Your task to perform on an android device: Show the shopping cart on ebay. Add macbook pro 15 inch to the cart on ebay Image 0: 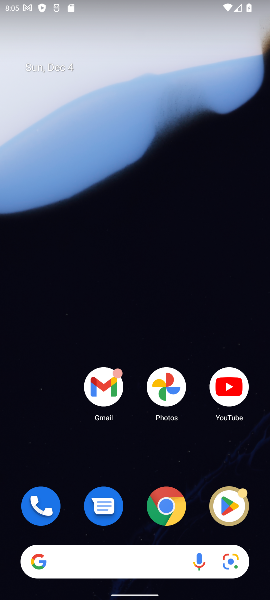
Step 0: click (172, 515)
Your task to perform on an android device: Show the shopping cart on ebay. Add macbook pro 15 inch to the cart on ebay Image 1: 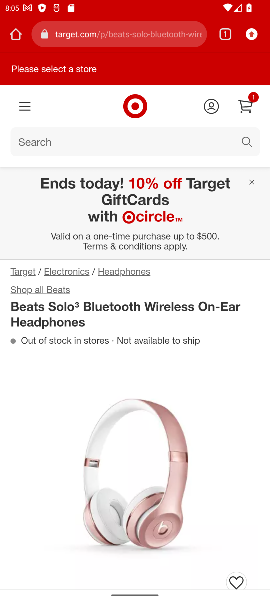
Step 1: click (107, 35)
Your task to perform on an android device: Show the shopping cart on ebay. Add macbook pro 15 inch to the cart on ebay Image 2: 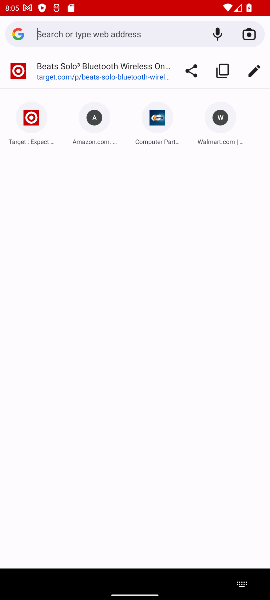
Step 2: type "ebay"
Your task to perform on an android device: Show the shopping cart on ebay. Add macbook pro 15 inch to the cart on ebay Image 3: 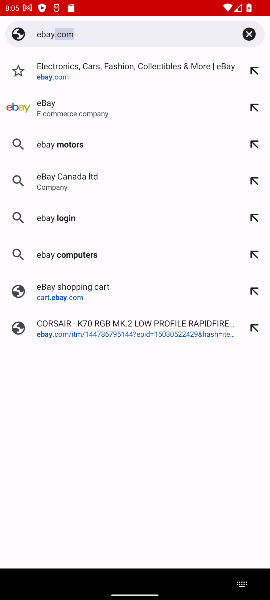
Step 3: click (55, 100)
Your task to perform on an android device: Show the shopping cart on ebay. Add macbook pro 15 inch to the cart on ebay Image 4: 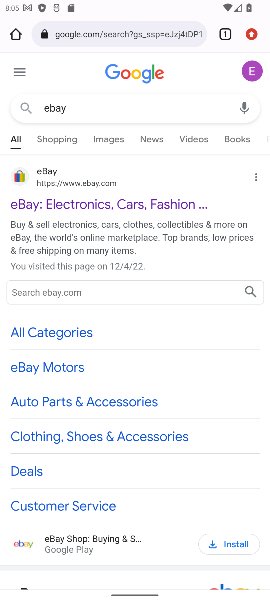
Step 4: click (103, 209)
Your task to perform on an android device: Show the shopping cart on ebay. Add macbook pro 15 inch to the cart on ebay Image 5: 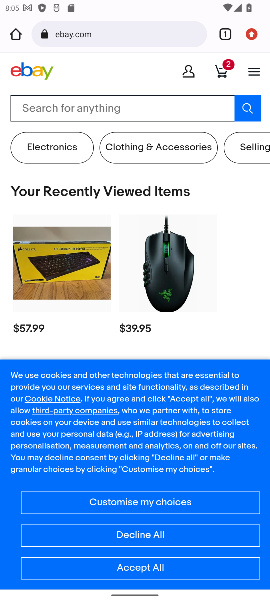
Step 5: click (219, 72)
Your task to perform on an android device: Show the shopping cart on ebay. Add macbook pro 15 inch to the cart on ebay Image 6: 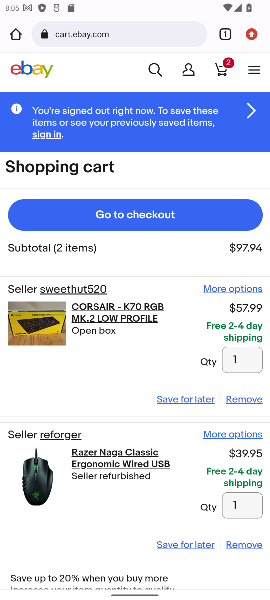
Step 6: click (153, 71)
Your task to perform on an android device: Show the shopping cart on ebay. Add macbook pro 15 inch to the cart on ebay Image 7: 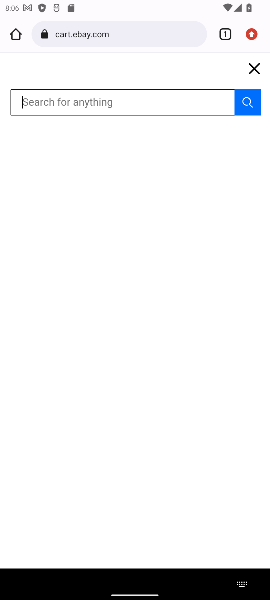
Step 7: type "macbook pro 15"
Your task to perform on an android device: Show the shopping cart on ebay. Add macbook pro 15 inch to the cart on ebay Image 8: 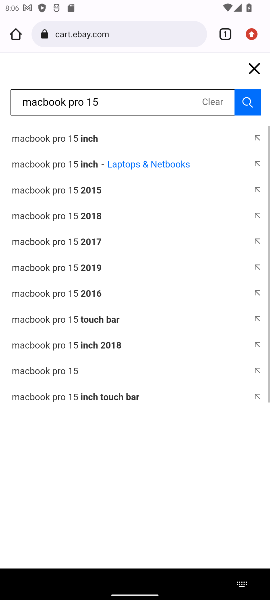
Step 8: click (76, 144)
Your task to perform on an android device: Show the shopping cart on ebay. Add macbook pro 15 inch to the cart on ebay Image 9: 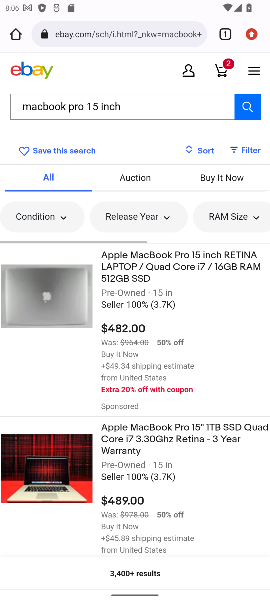
Step 9: click (141, 281)
Your task to perform on an android device: Show the shopping cart on ebay. Add macbook pro 15 inch to the cart on ebay Image 10: 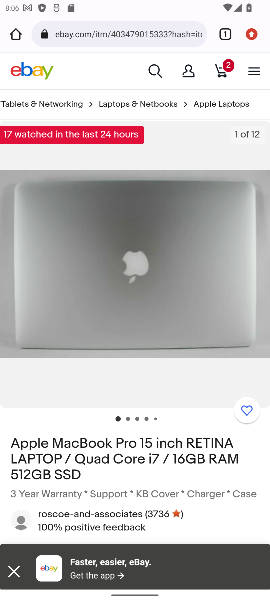
Step 10: drag from (172, 532) to (149, 100)
Your task to perform on an android device: Show the shopping cart on ebay. Add macbook pro 15 inch to the cart on ebay Image 11: 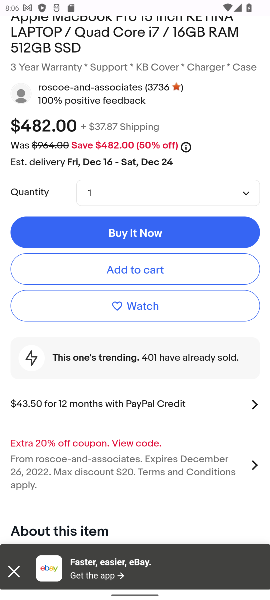
Step 11: click (236, 264)
Your task to perform on an android device: Show the shopping cart on ebay. Add macbook pro 15 inch to the cart on ebay Image 12: 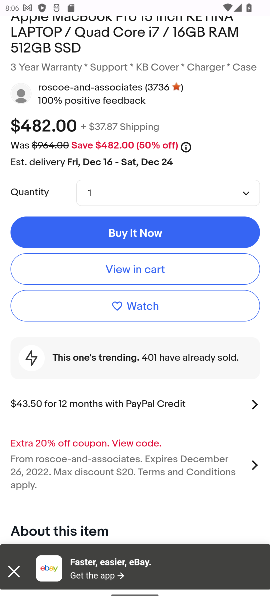
Step 12: task complete